Your task to perform on an android device: Turn on the flashlight Image 0: 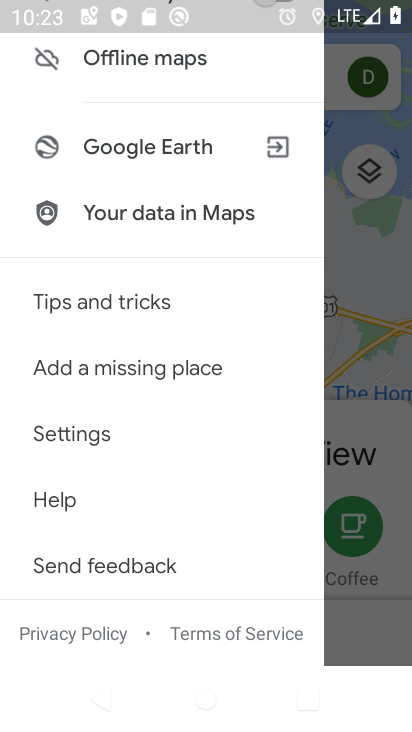
Step 0: press home button
Your task to perform on an android device: Turn on the flashlight Image 1: 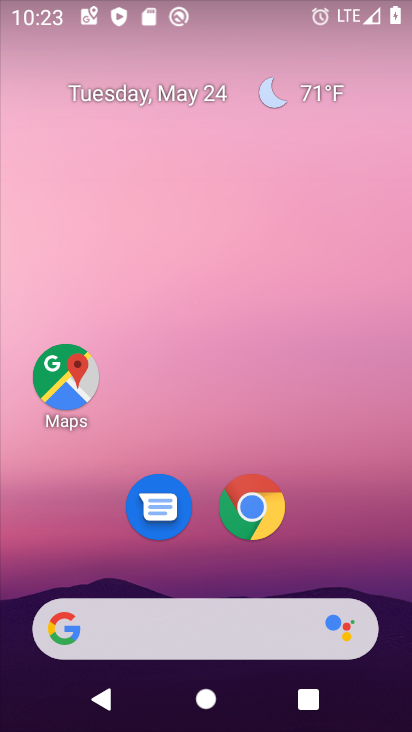
Step 1: drag from (238, 728) to (234, 81)
Your task to perform on an android device: Turn on the flashlight Image 2: 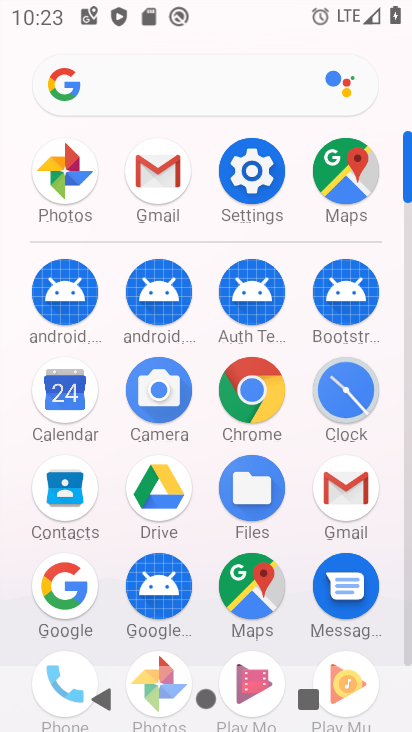
Step 2: click (253, 169)
Your task to perform on an android device: Turn on the flashlight Image 3: 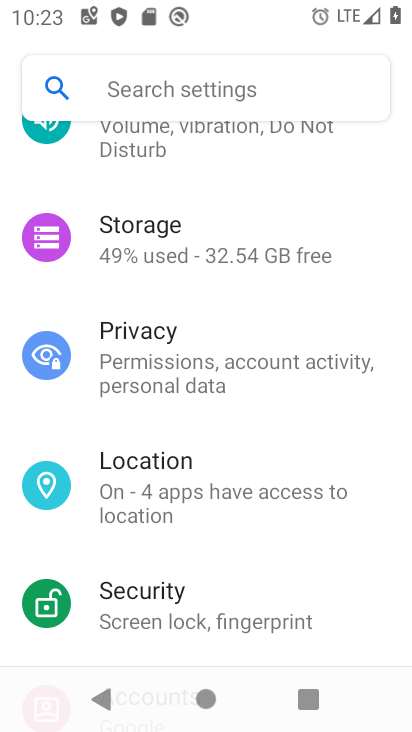
Step 3: drag from (210, 596) to (198, 210)
Your task to perform on an android device: Turn on the flashlight Image 4: 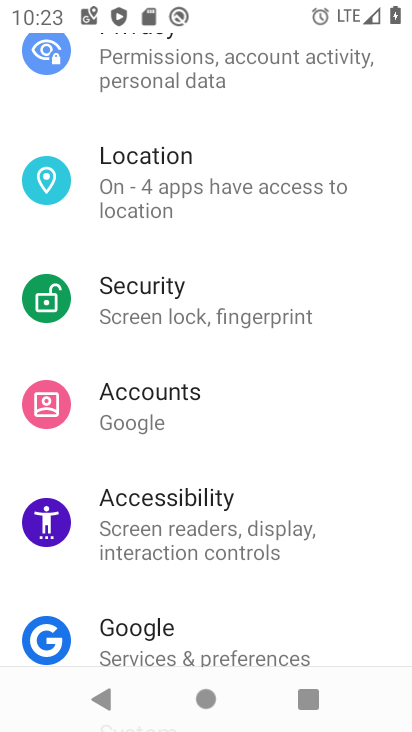
Step 4: drag from (205, 636) to (210, 229)
Your task to perform on an android device: Turn on the flashlight Image 5: 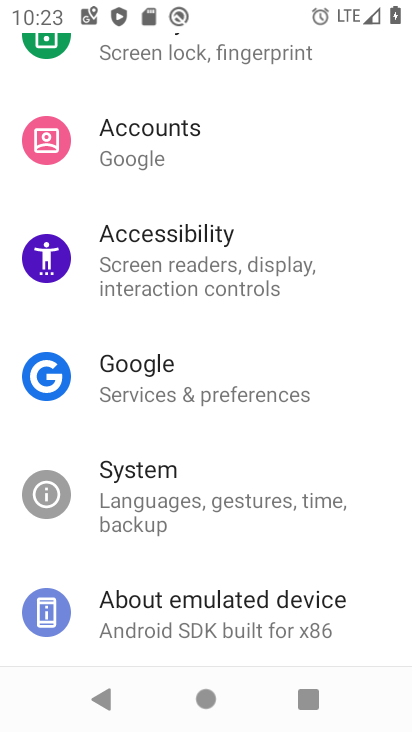
Step 5: drag from (213, 623) to (220, 218)
Your task to perform on an android device: Turn on the flashlight Image 6: 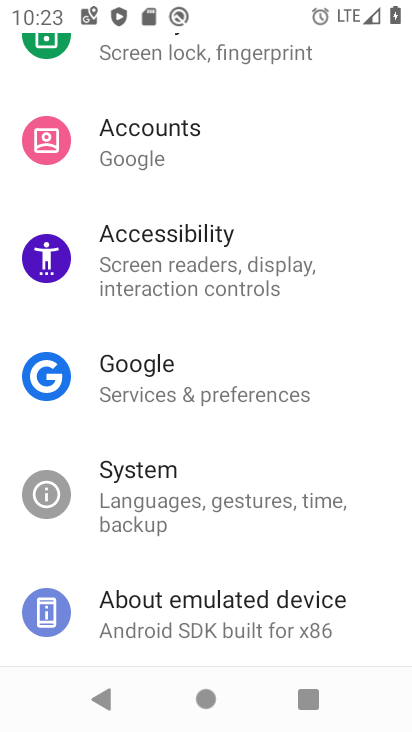
Step 6: drag from (233, 599) to (233, 262)
Your task to perform on an android device: Turn on the flashlight Image 7: 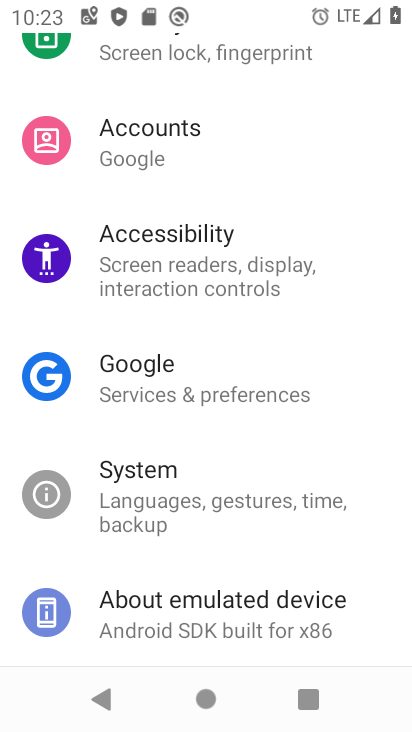
Step 7: click (226, 178)
Your task to perform on an android device: Turn on the flashlight Image 8: 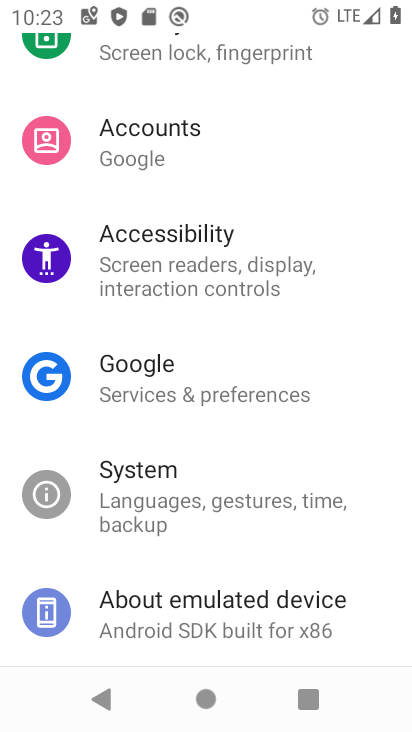
Step 8: task complete